Your task to perform on an android device: open the mobile data screen to see how much data has been used Image 0: 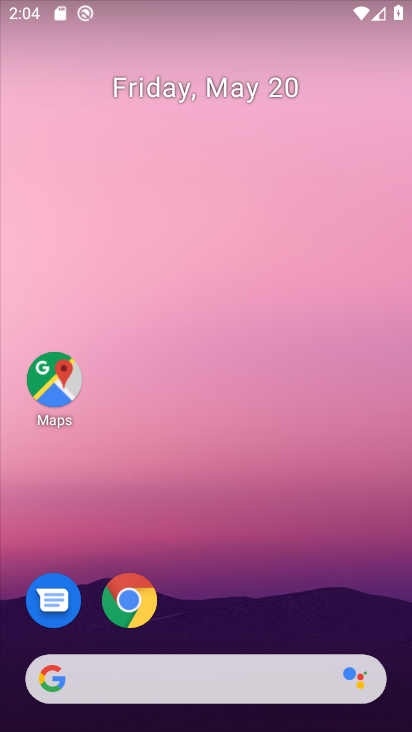
Step 0: drag from (233, 423) to (185, 9)
Your task to perform on an android device: open the mobile data screen to see how much data has been used Image 1: 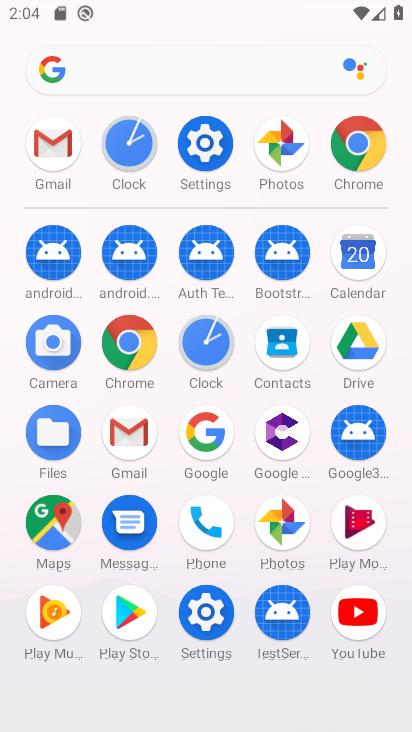
Step 1: click (213, 147)
Your task to perform on an android device: open the mobile data screen to see how much data has been used Image 2: 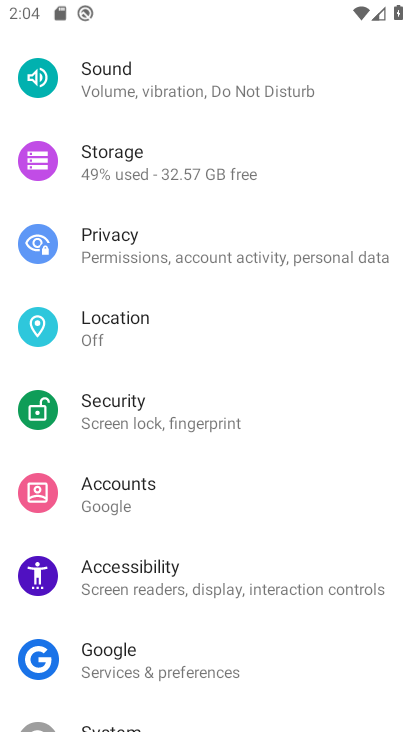
Step 2: drag from (227, 156) to (258, 731)
Your task to perform on an android device: open the mobile data screen to see how much data has been used Image 3: 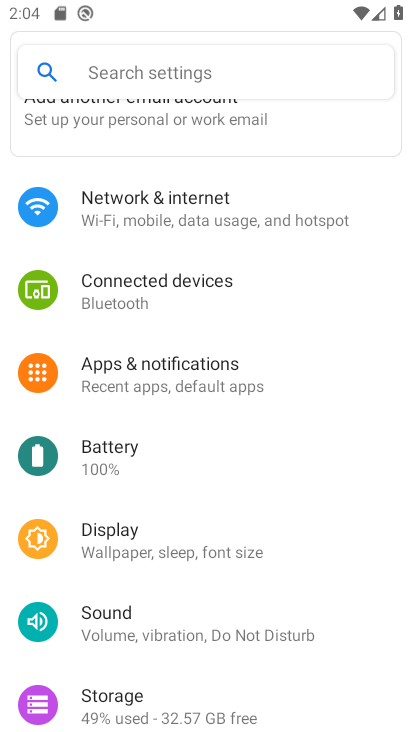
Step 3: click (204, 218)
Your task to perform on an android device: open the mobile data screen to see how much data has been used Image 4: 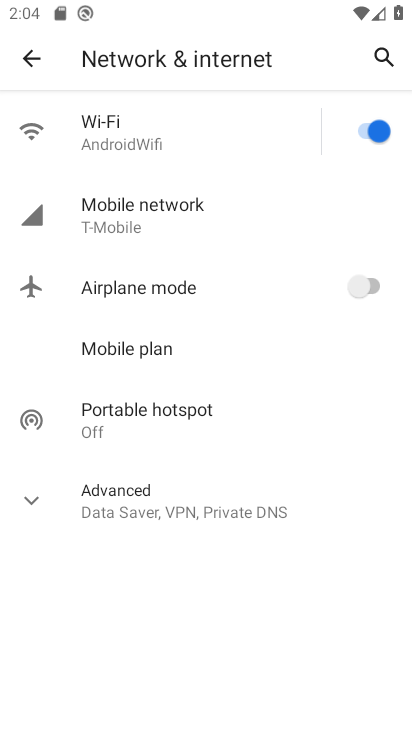
Step 4: click (183, 214)
Your task to perform on an android device: open the mobile data screen to see how much data has been used Image 5: 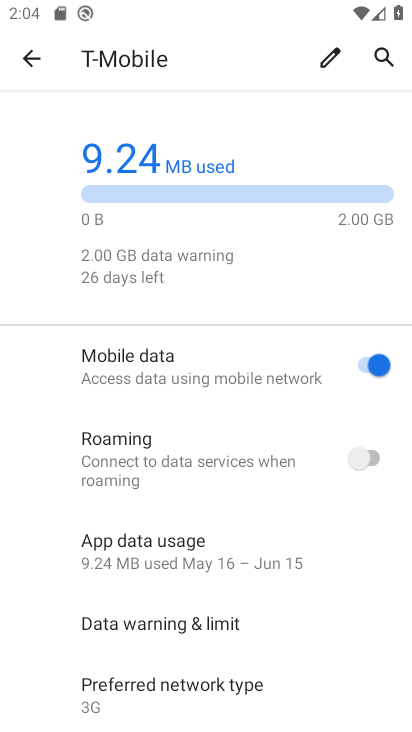
Step 5: task complete